Your task to perform on an android device: show emergency info Image 0: 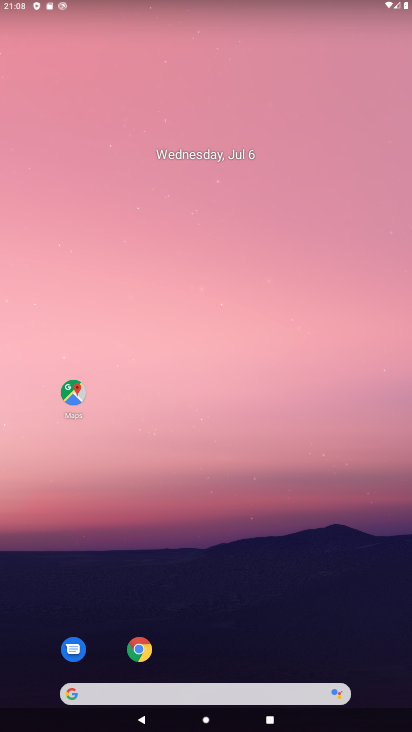
Step 0: drag from (165, 659) to (187, 204)
Your task to perform on an android device: show emergency info Image 1: 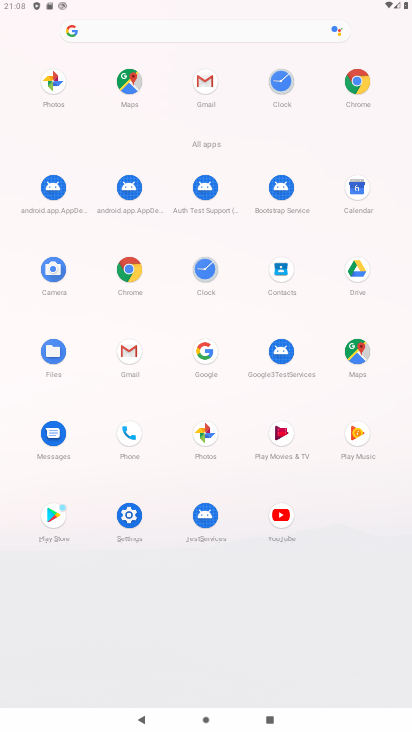
Step 1: click (128, 510)
Your task to perform on an android device: show emergency info Image 2: 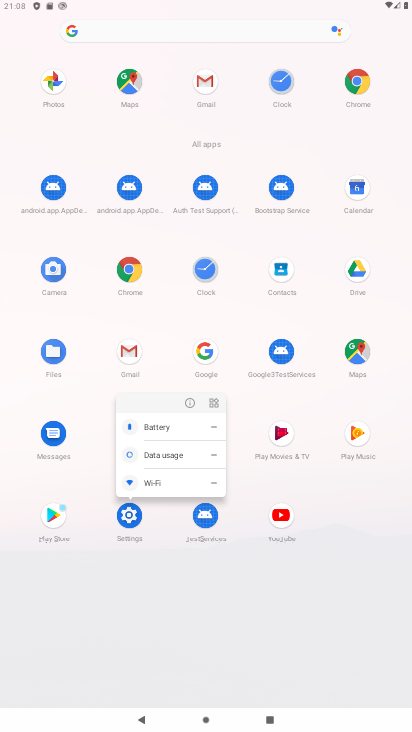
Step 2: click (190, 400)
Your task to perform on an android device: show emergency info Image 3: 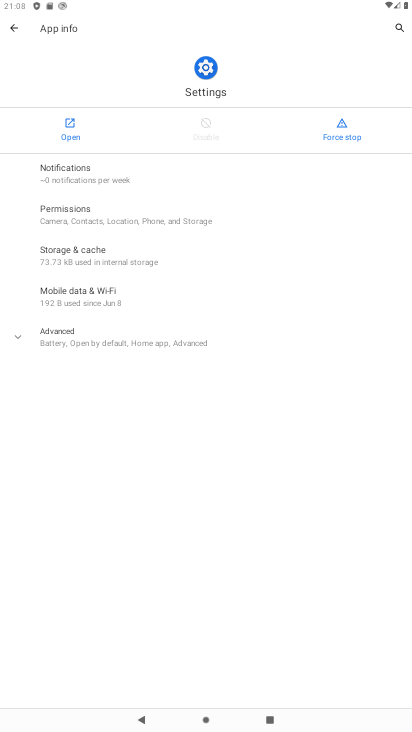
Step 3: click (62, 126)
Your task to perform on an android device: show emergency info Image 4: 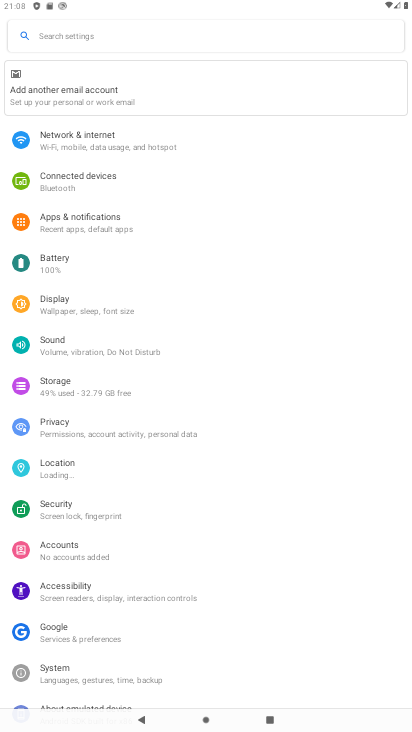
Step 4: drag from (195, 586) to (265, 173)
Your task to perform on an android device: show emergency info Image 5: 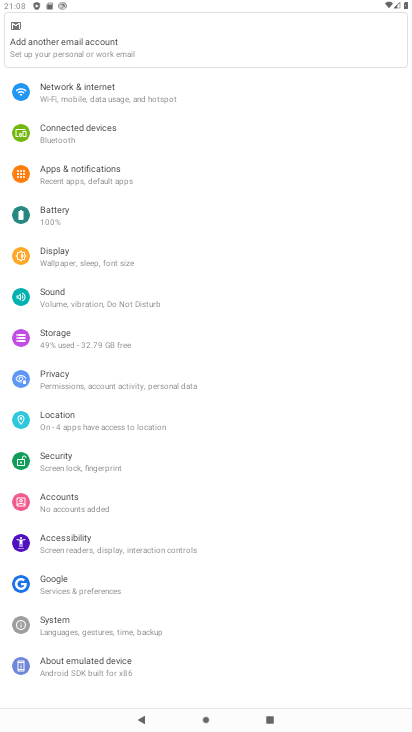
Step 5: click (106, 665)
Your task to perform on an android device: show emergency info Image 6: 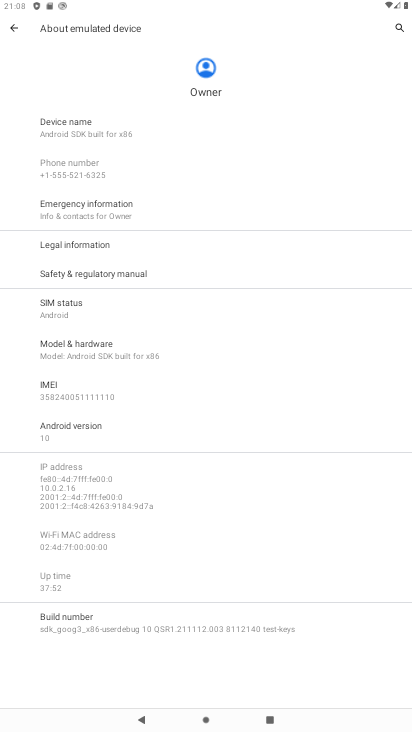
Step 6: click (104, 216)
Your task to perform on an android device: show emergency info Image 7: 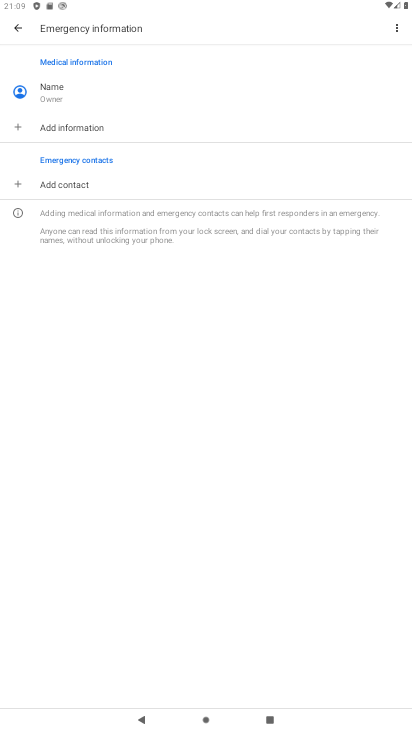
Step 7: task complete